Your task to perform on an android device: Go to Wikipedia Image 0: 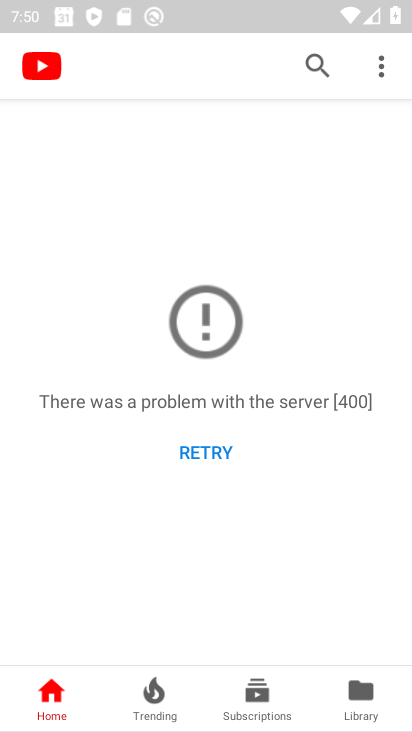
Step 0: press home button
Your task to perform on an android device: Go to Wikipedia Image 1: 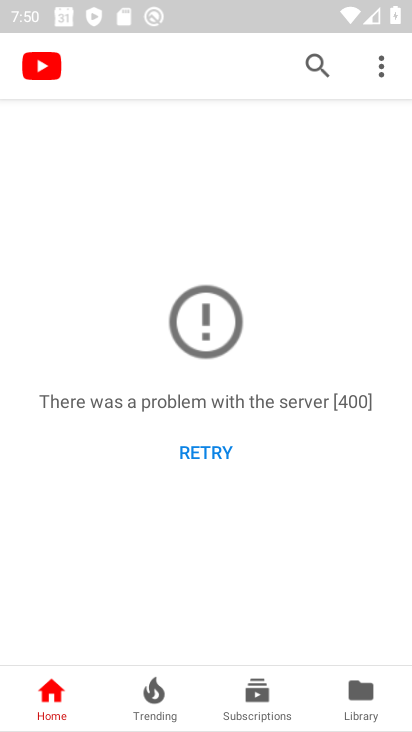
Step 1: press home button
Your task to perform on an android device: Go to Wikipedia Image 2: 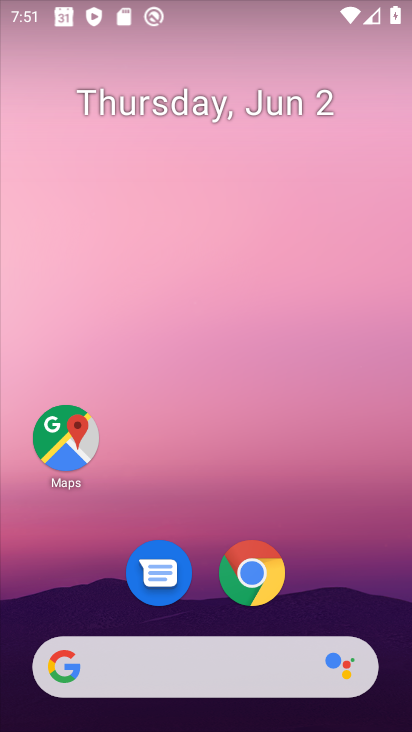
Step 2: drag from (353, 592) to (45, 88)
Your task to perform on an android device: Go to Wikipedia Image 3: 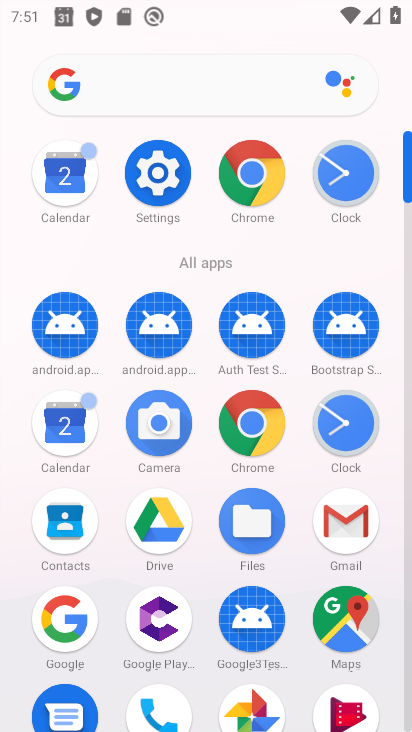
Step 3: click (256, 159)
Your task to perform on an android device: Go to Wikipedia Image 4: 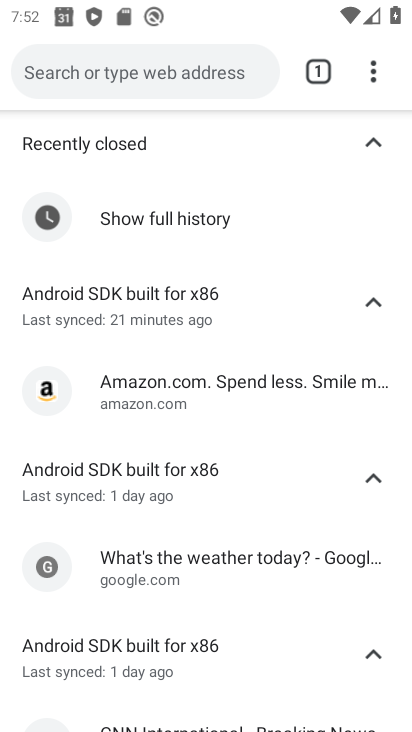
Step 4: click (135, 73)
Your task to perform on an android device: Go to Wikipedia Image 5: 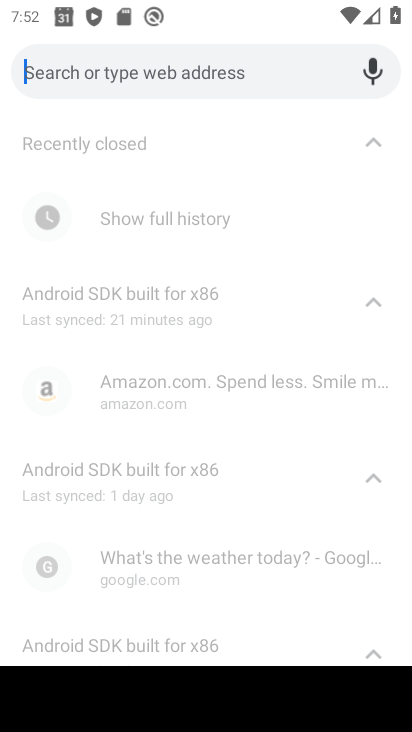
Step 5: type "wikipedia"
Your task to perform on an android device: Go to Wikipedia Image 6: 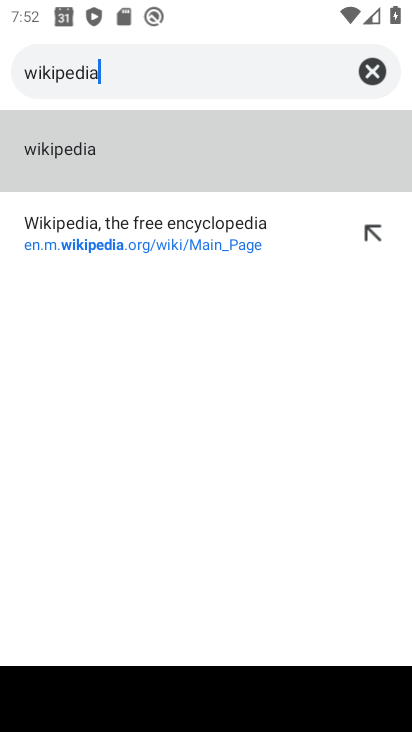
Step 6: click (86, 253)
Your task to perform on an android device: Go to Wikipedia Image 7: 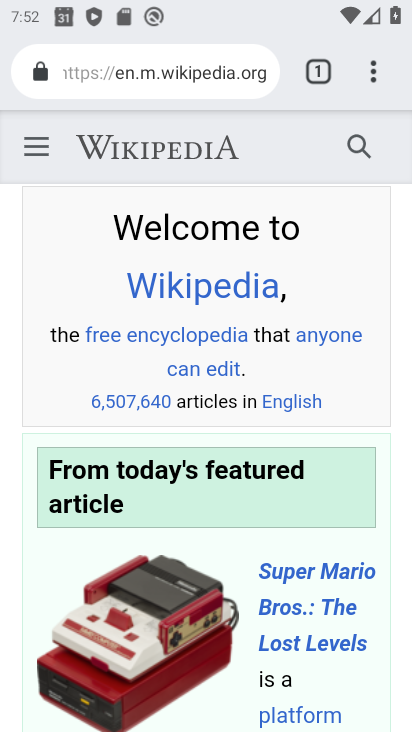
Step 7: task complete